Your task to perform on an android device: delete browsing data in the chrome app Image 0: 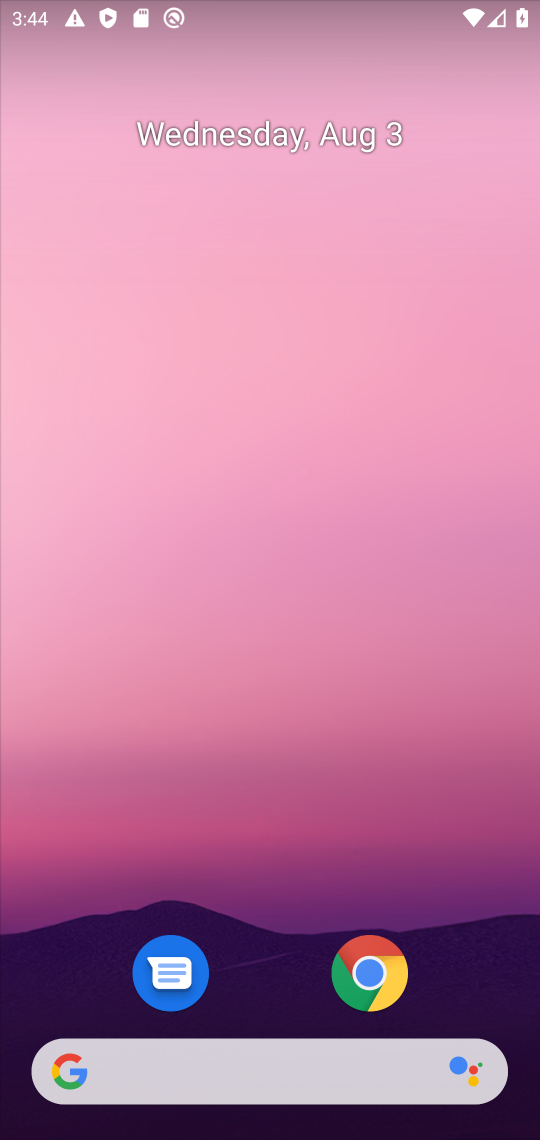
Step 0: click (385, 973)
Your task to perform on an android device: delete browsing data in the chrome app Image 1: 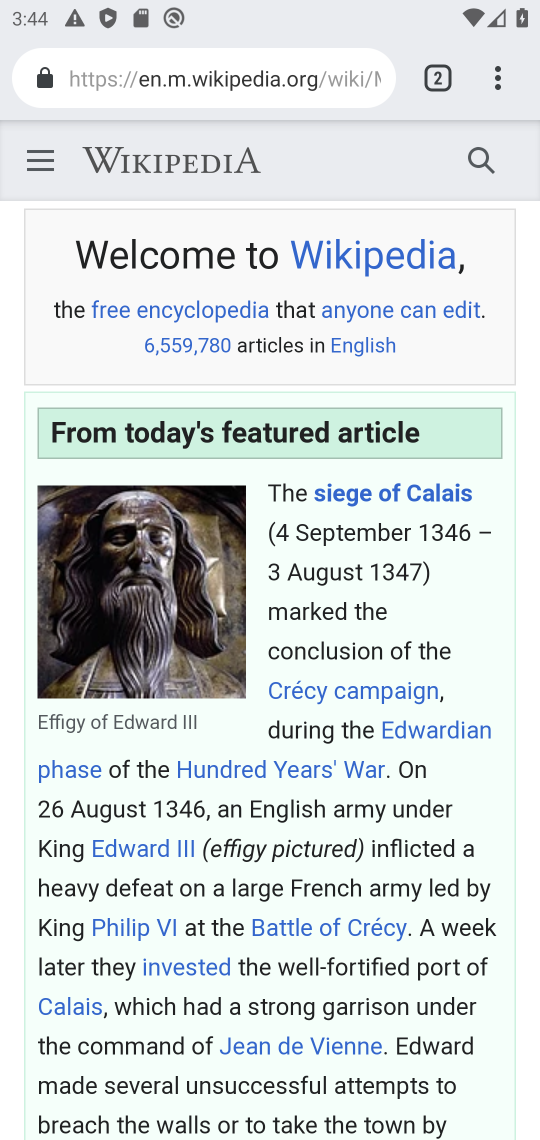
Step 1: click (494, 68)
Your task to perform on an android device: delete browsing data in the chrome app Image 2: 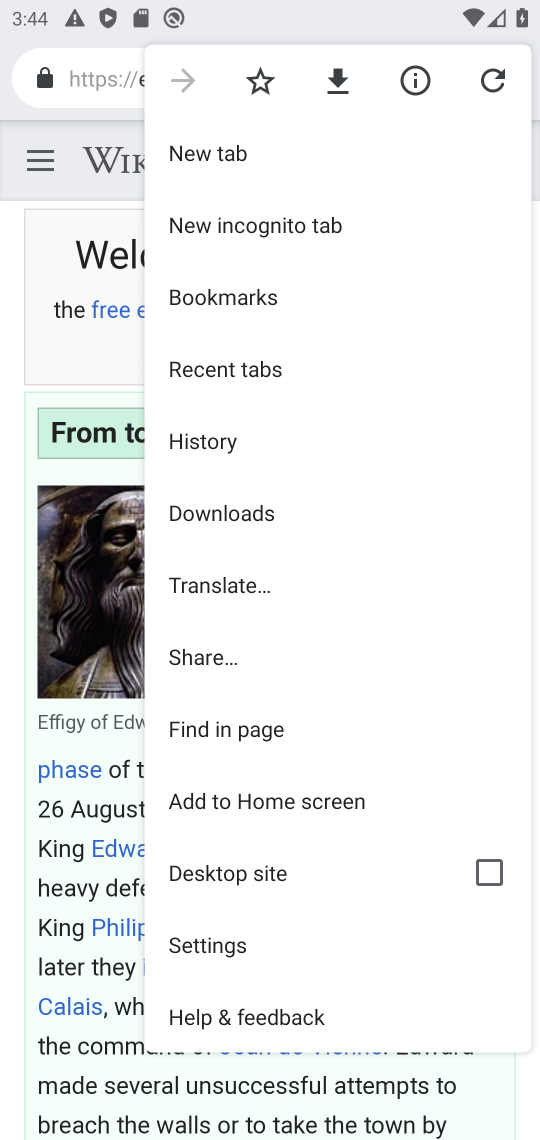
Step 2: click (222, 432)
Your task to perform on an android device: delete browsing data in the chrome app Image 3: 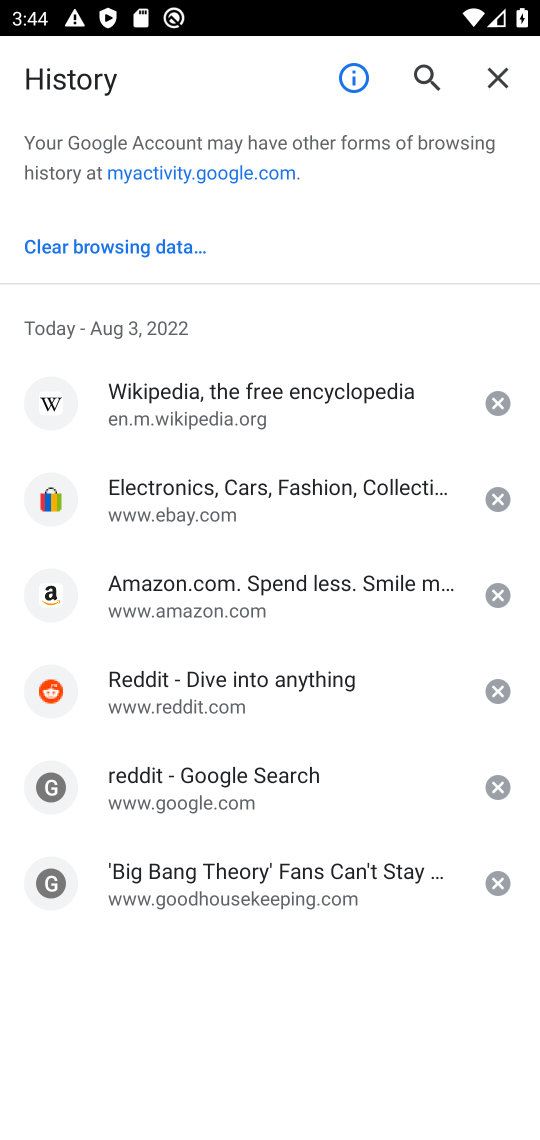
Step 3: click (142, 249)
Your task to perform on an android device: delete browsing data in the chrome app Image 4: 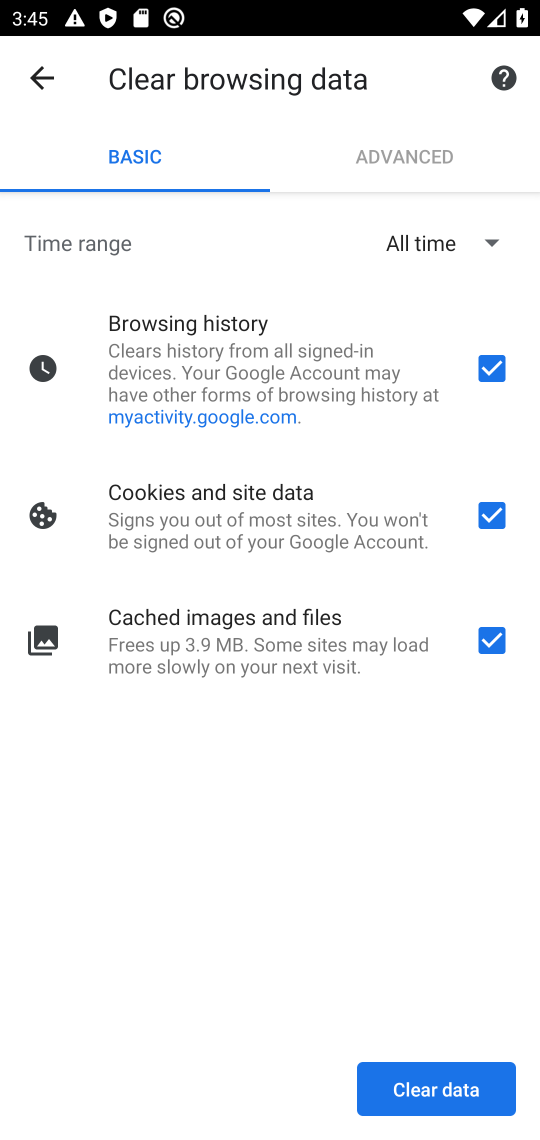
Step 4: click (444, 1096)
Your task to perform on an android device: delete browsing data in the chrome app Image 5: 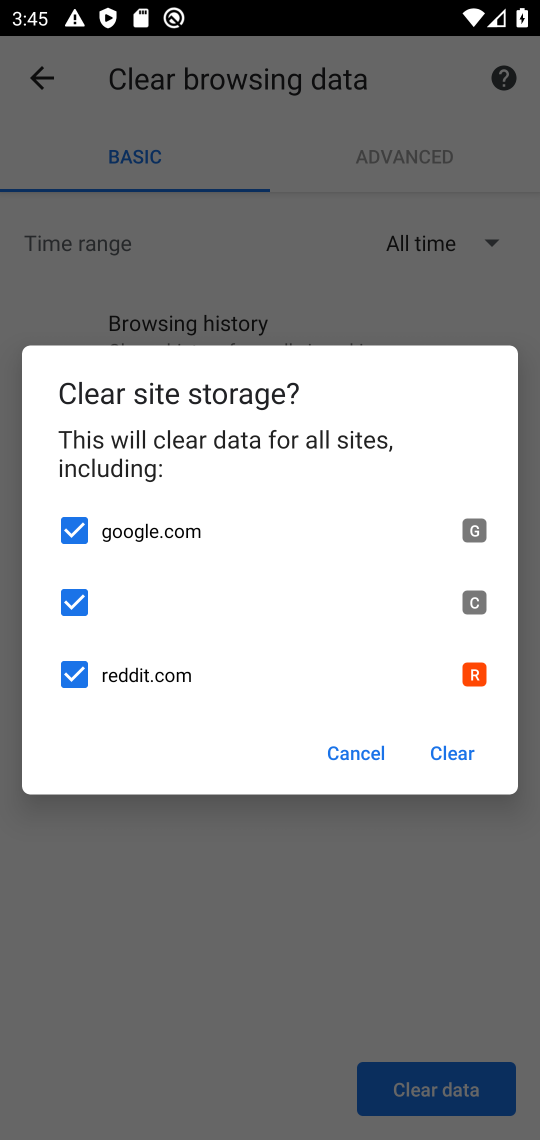
Step 5: click (465, 741)
Your task to perform on an android device: delete browsing data in the chrome app Image 6: 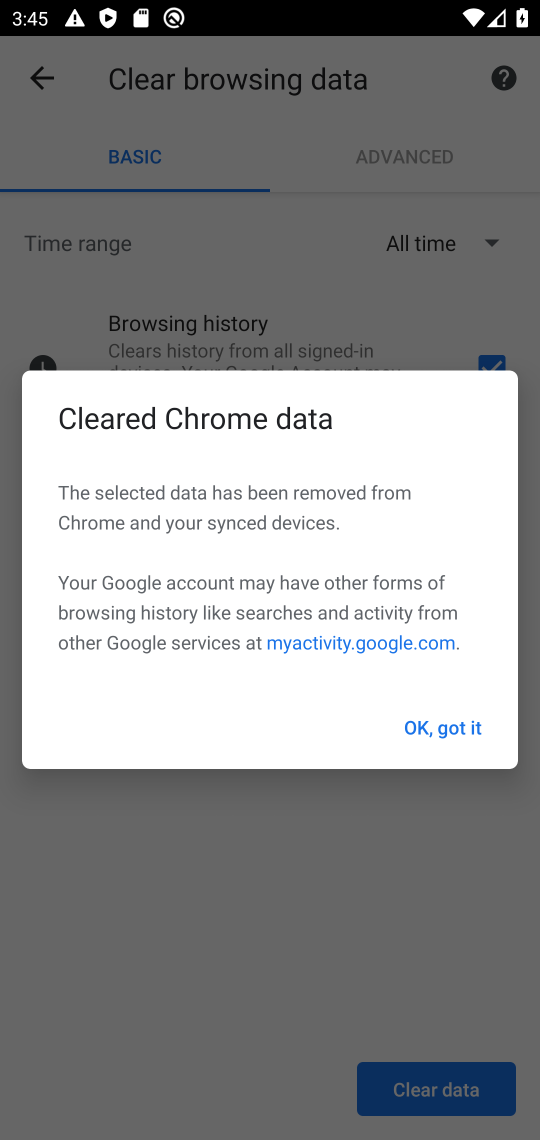
Step 6: click (465, 712)
Your task to perform on an android device: delete browsing data in the chrome app Image 7: 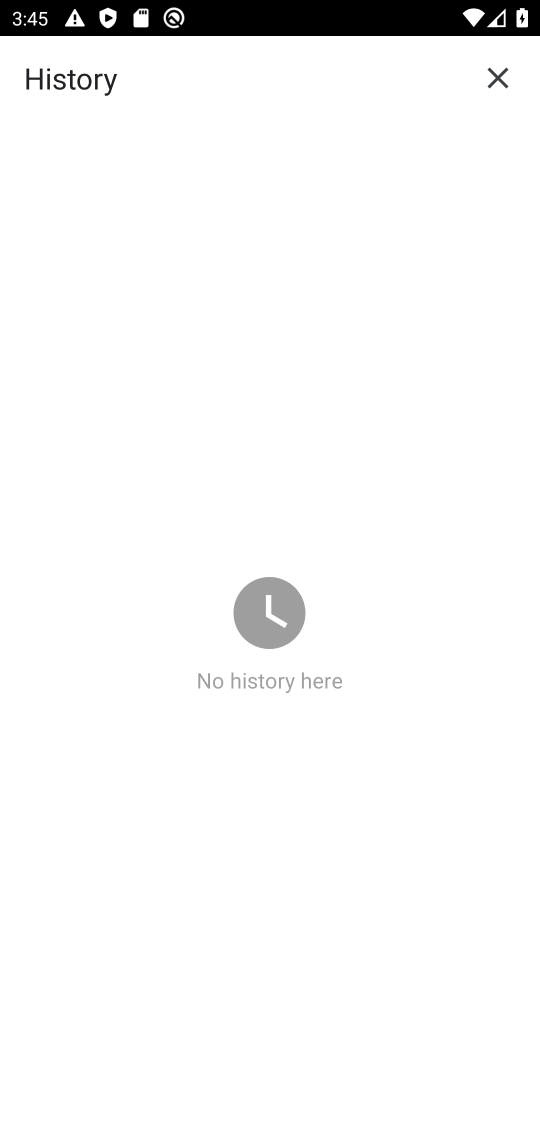
Step 7: task complete